Your task to perform on an android device: What is the recent news? Image 0: 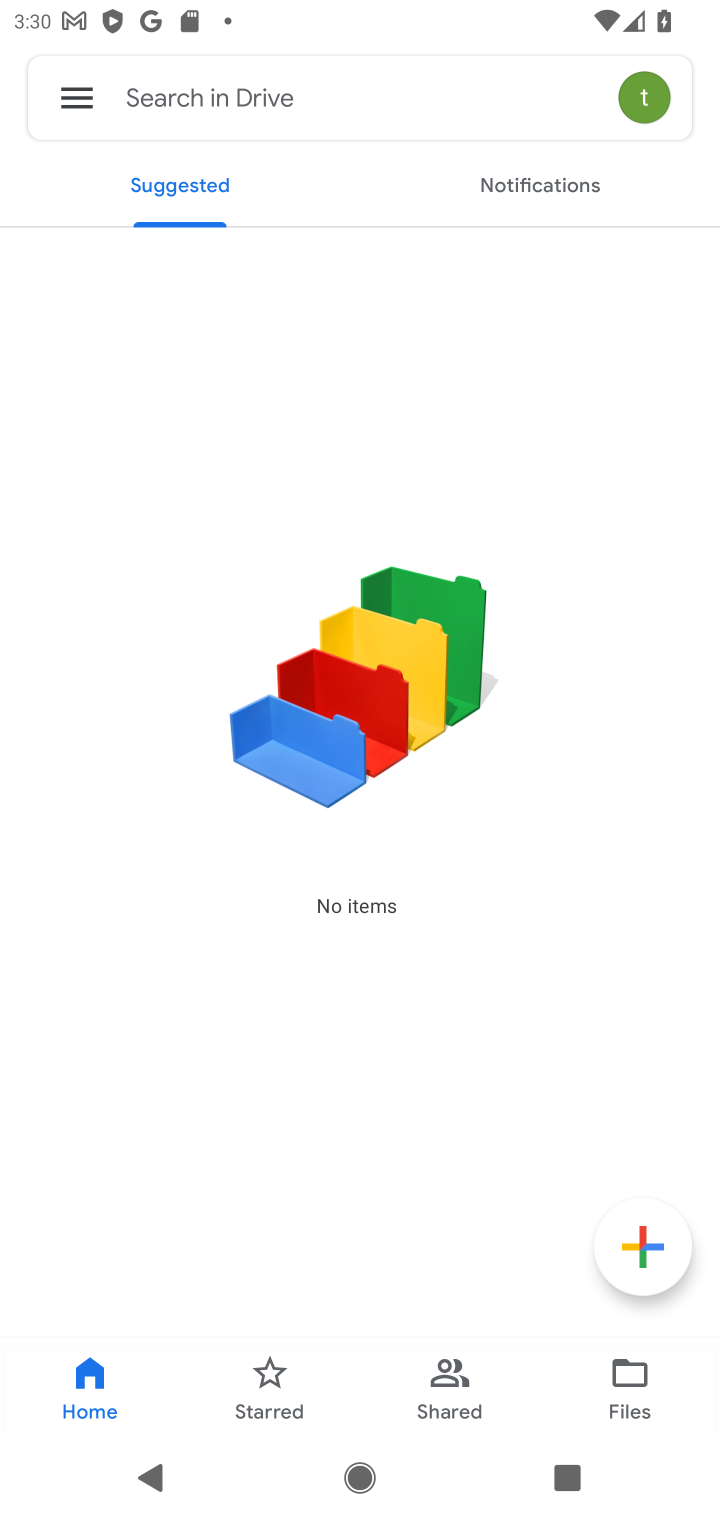
Step 0: press home button
Your task to perform on an android device: What is the recent news? Image 1: 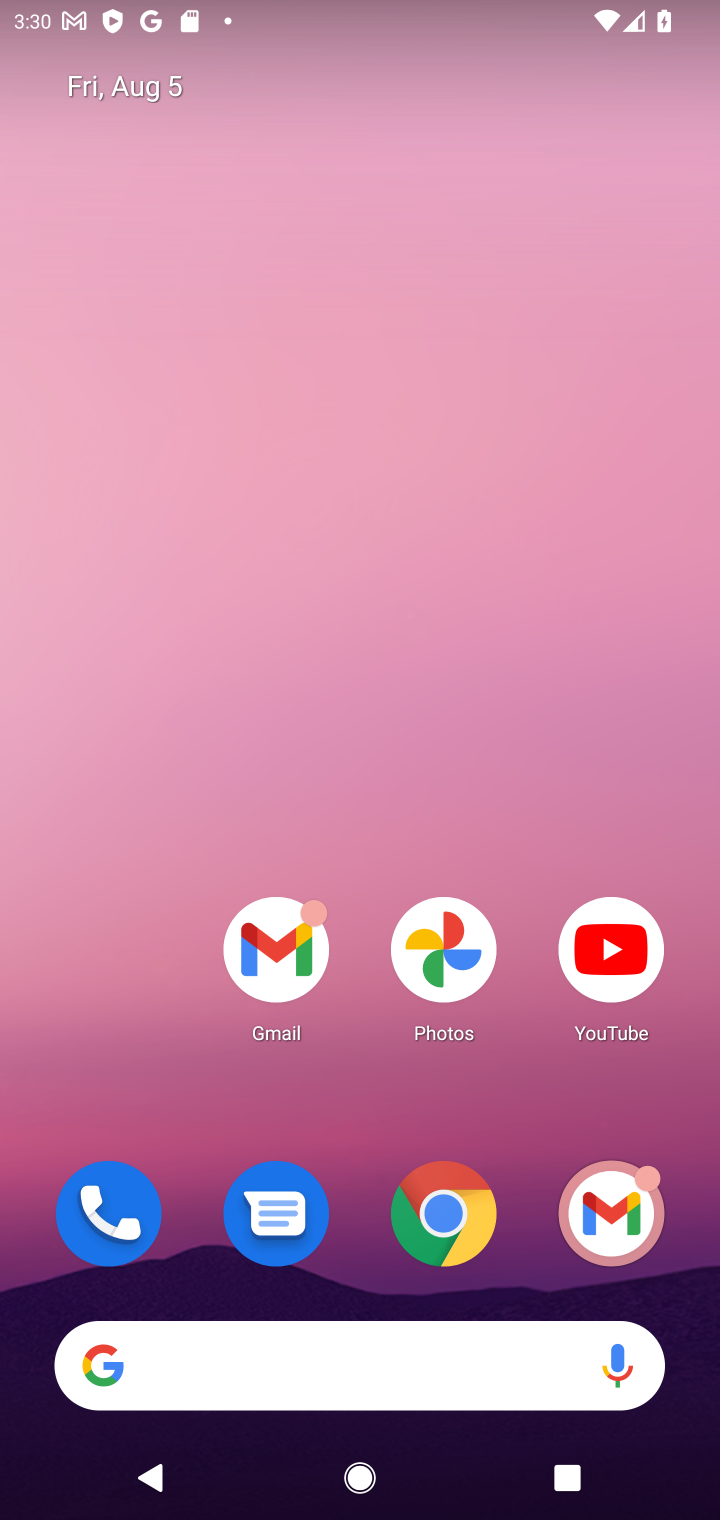
Step 1: click (321, 1362)
Your task to perform on an android device: What is the recent news? Image 2: 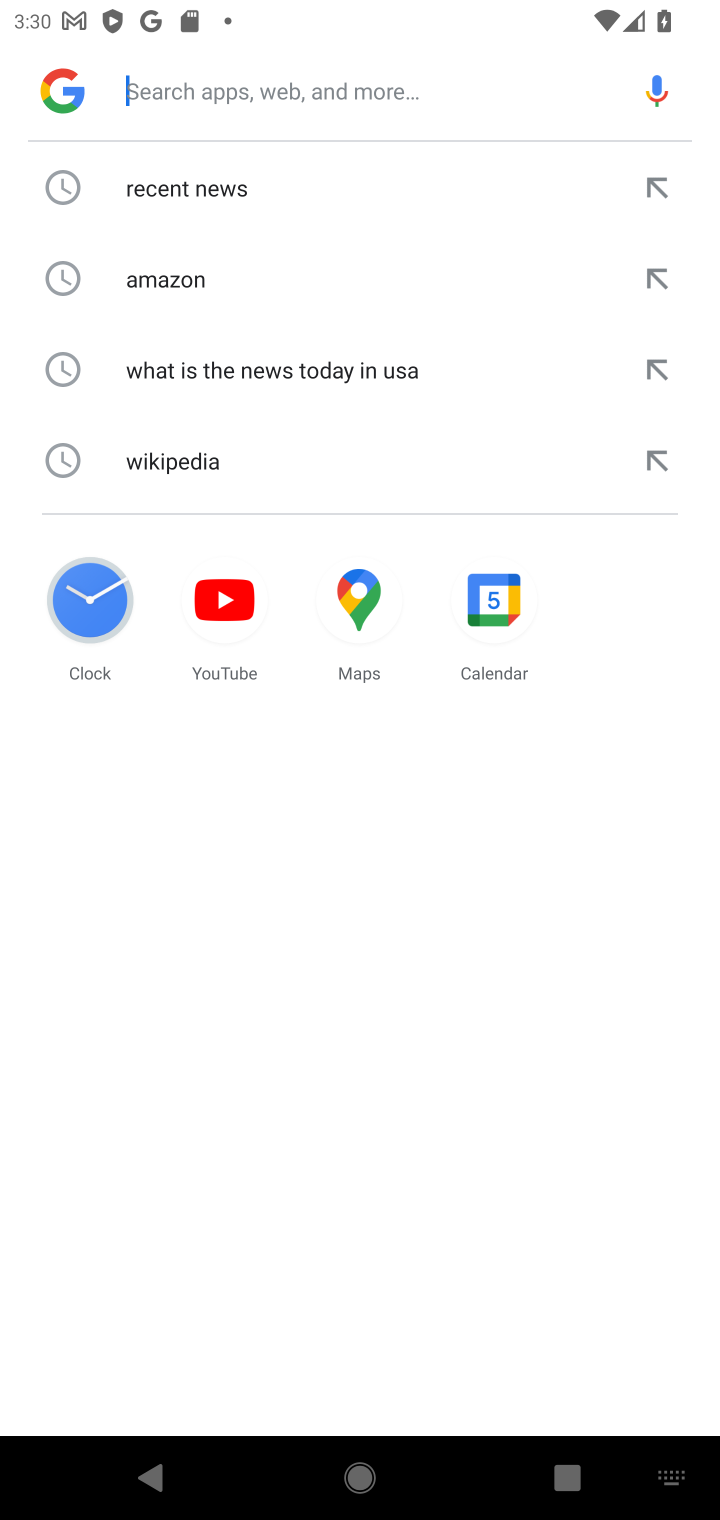
Step 2: click (226, 202)
Your task to perform on an android device: What is the recent news? Image 3: 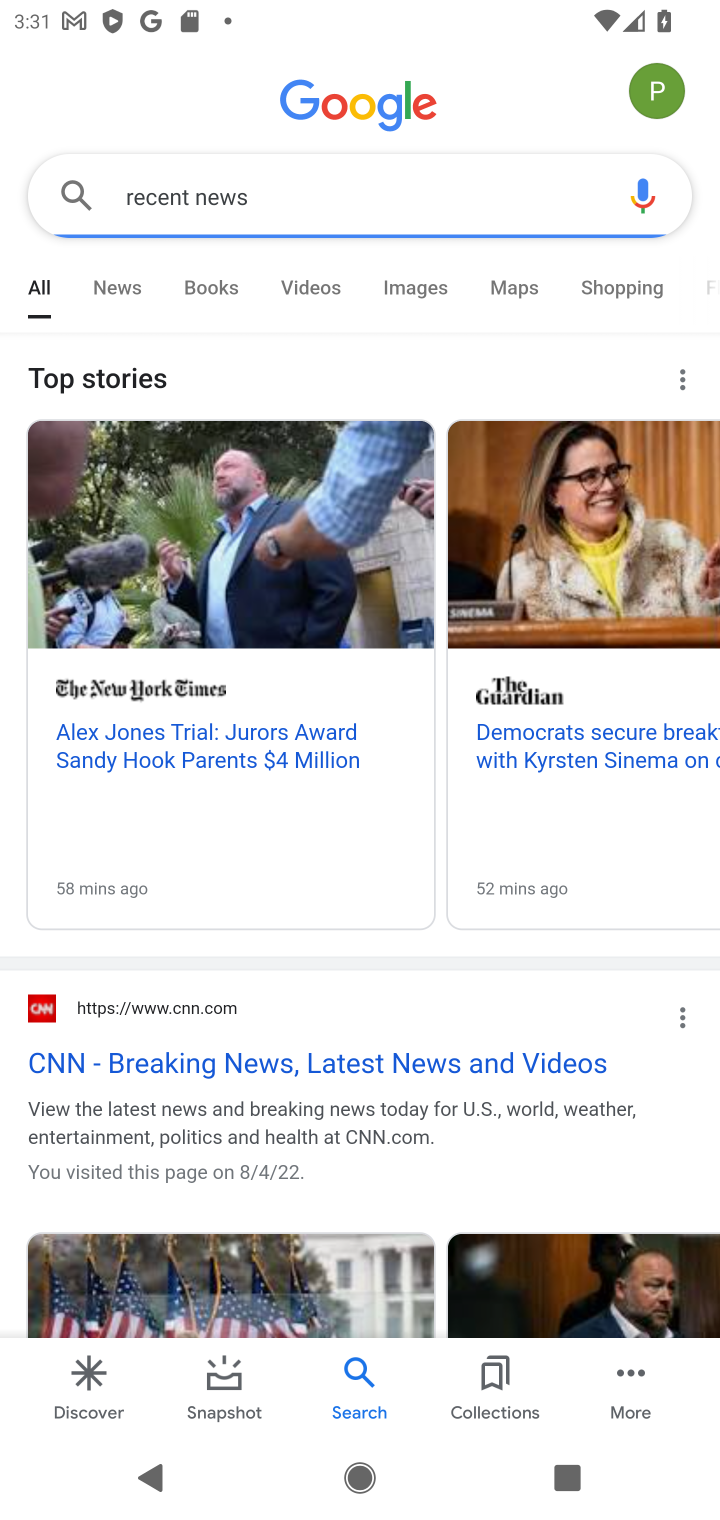
Step 3: task complete